Your task to perform on an android device: turn on translation in the chrome app Image 0: 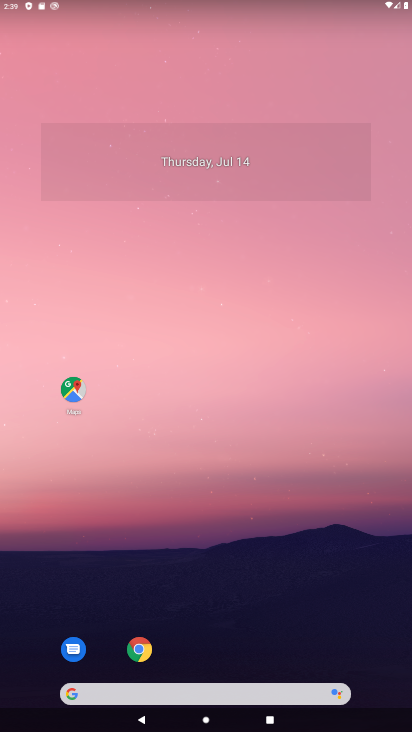
Step 0: click (142, 650)
Your task to perform on an android device: turn on translation in the chrome app Image 1: 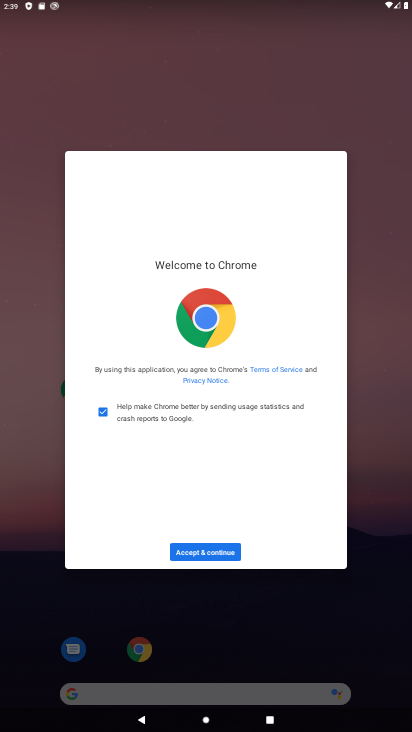
Step 1: click (204, 558)
Your task to perform on an android device: turn on translation in the chrome app Image 2: 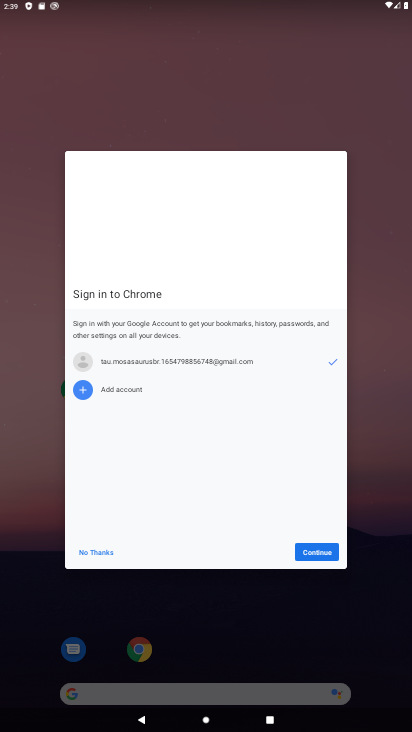
Step 2: click (316, 551)
Your task to perform on an android device: turn on translation in the chrome app Image 3: 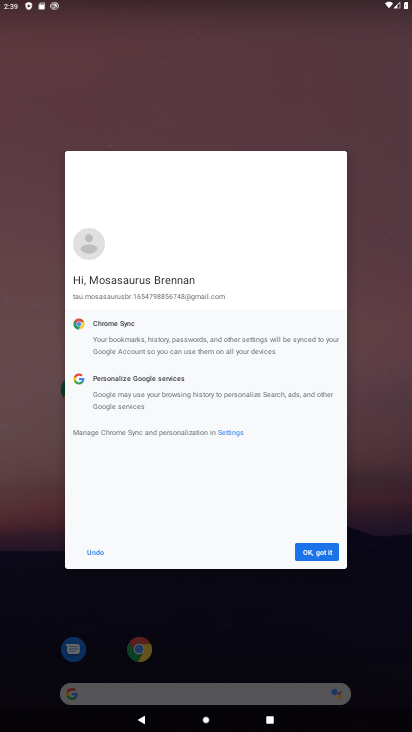
Step 3: click (316, 551)
Your task to perform on an android device: turn on translation in the chrome app Image 4: 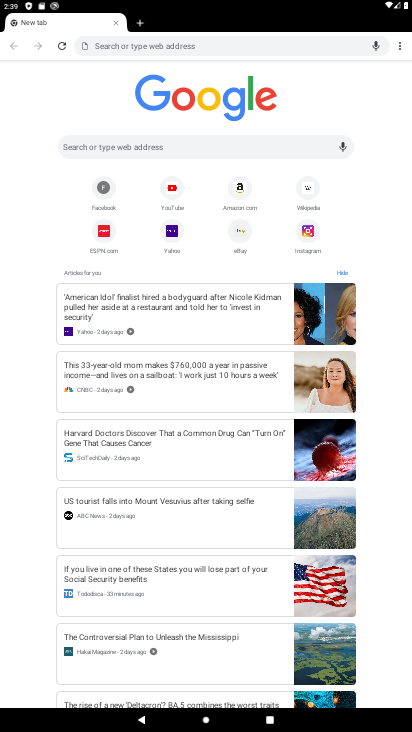
Step 4: click (396, 43)
Your task to perform on an android device: turn on translation in the chrome app Image 5: 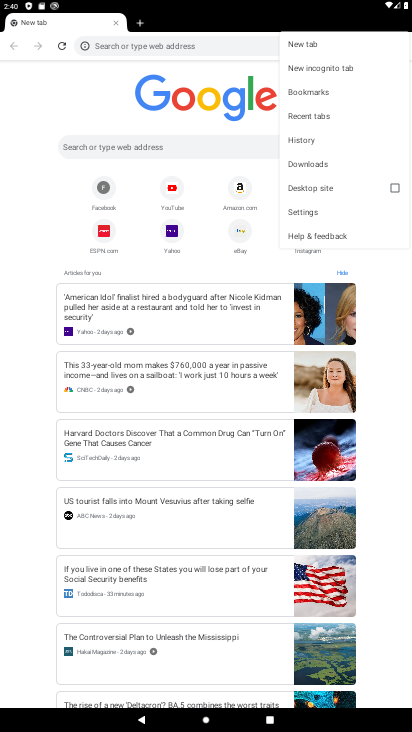
Step 5: click (348, 211)
Your task to perform on an android device: turn on translation in the chrome app Image 6: 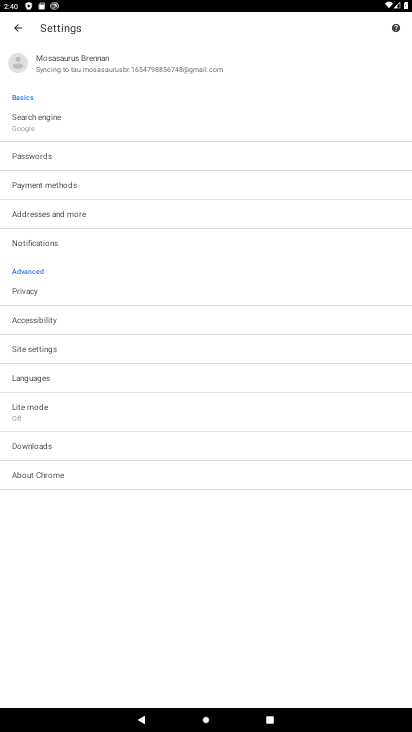
Step 6: click (121, 382)
Your task to perform on an android device: turn on translation in the chrome app Image 7: 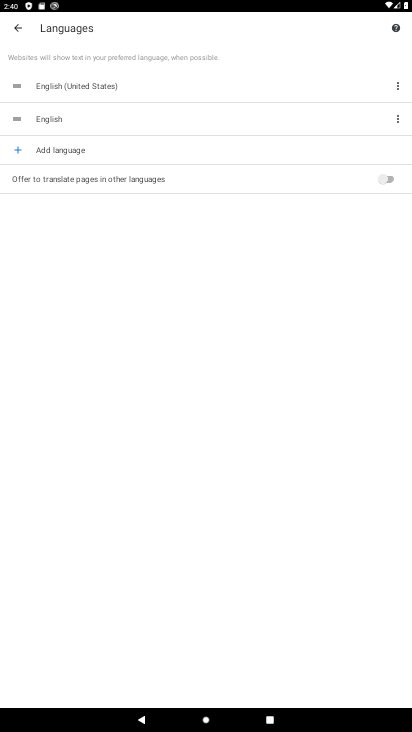
Step 7: click (385, 183)
Your task to perform on an android device: turn on translation in the chrome app Image 8: 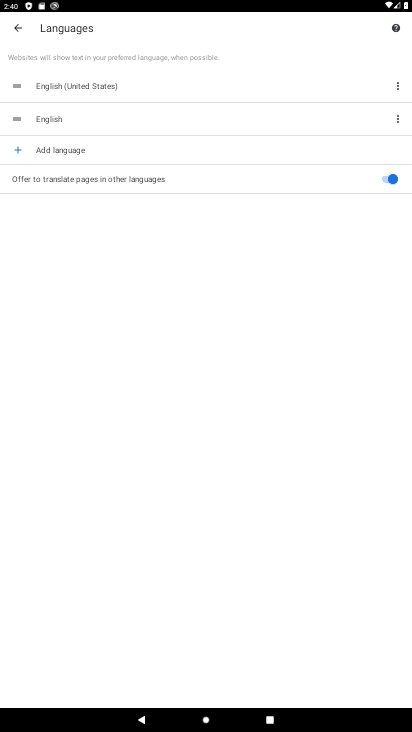
Step 8: task complete